Your task to perform on an android device: Open accessibility settings Image 0: 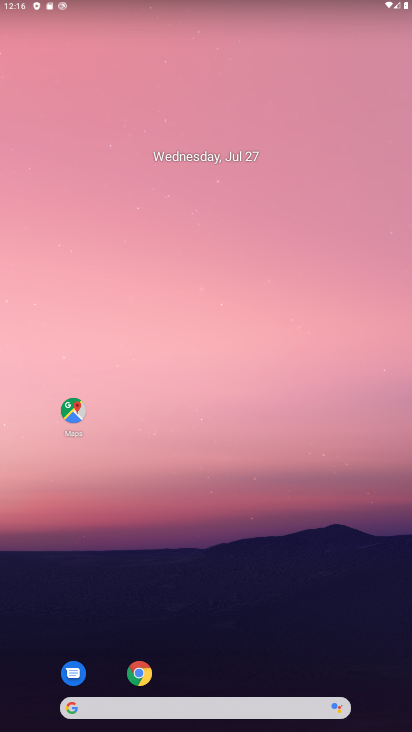
Step 0: drag from (371, 613) to (258, 6)
Your task to perform on an android device: Open accessibility settings Image 1: 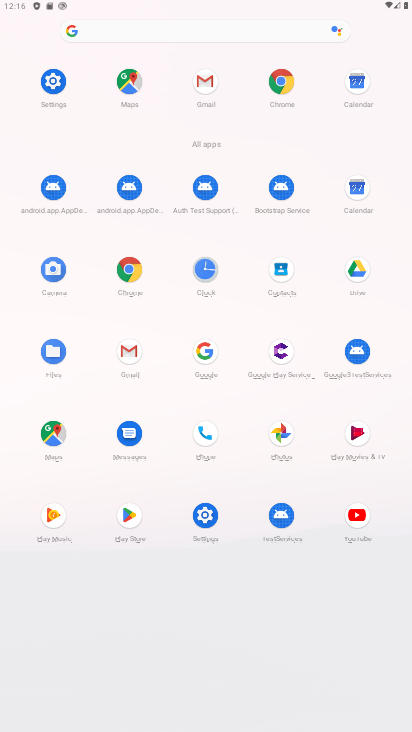
Step 1: click (62, 77)
Your task to perform on an android device: Open accessibility settings Image 2: 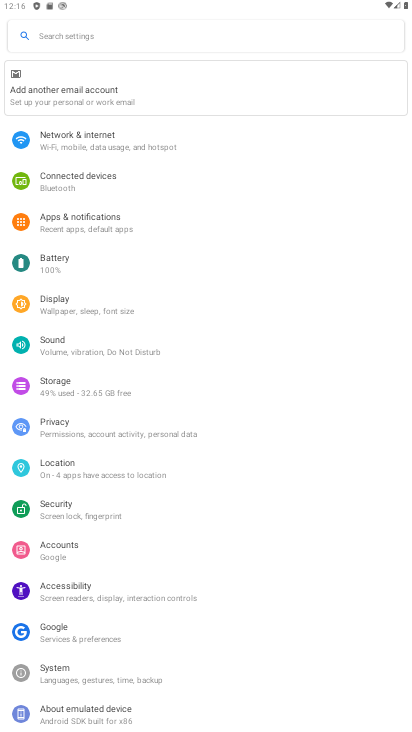
Step 2: drag from (278, 595) to (216, 107)
Your task to perform on an android device: Open accessibility settings Image 3: 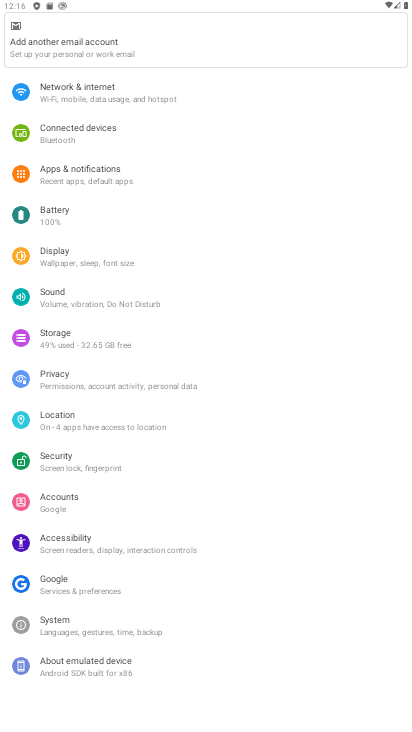
Step 3: click (95, 546)
Your task to perform on an android device: Open accessibility settings Image 4: 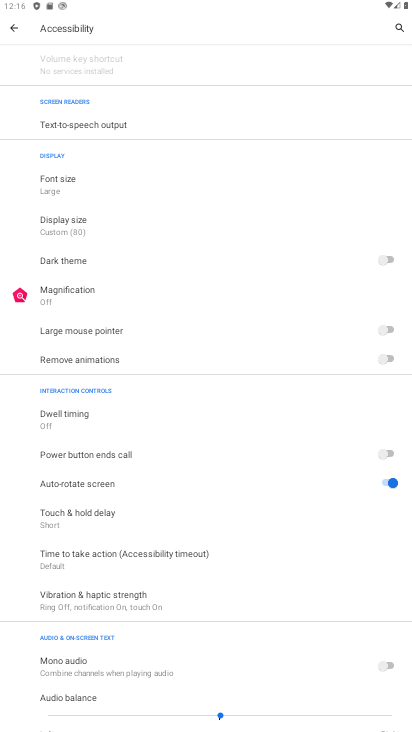
Step 4: task complete